Your task to perform on an android device: Search for "duracell triple a" on ebay.com, select the first entry, and add it to the cart. Image 0: 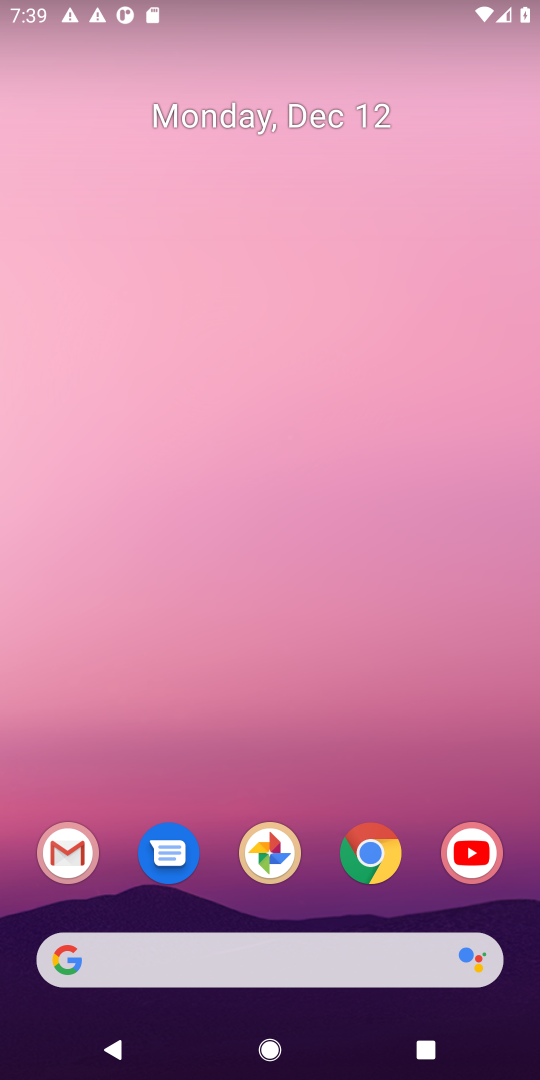
Step 0: click (377, 851)
Your task to perform on an android device: Search for "duracell triple a" on ebay.com, select the first entry, and add it to the cart. Image 1: 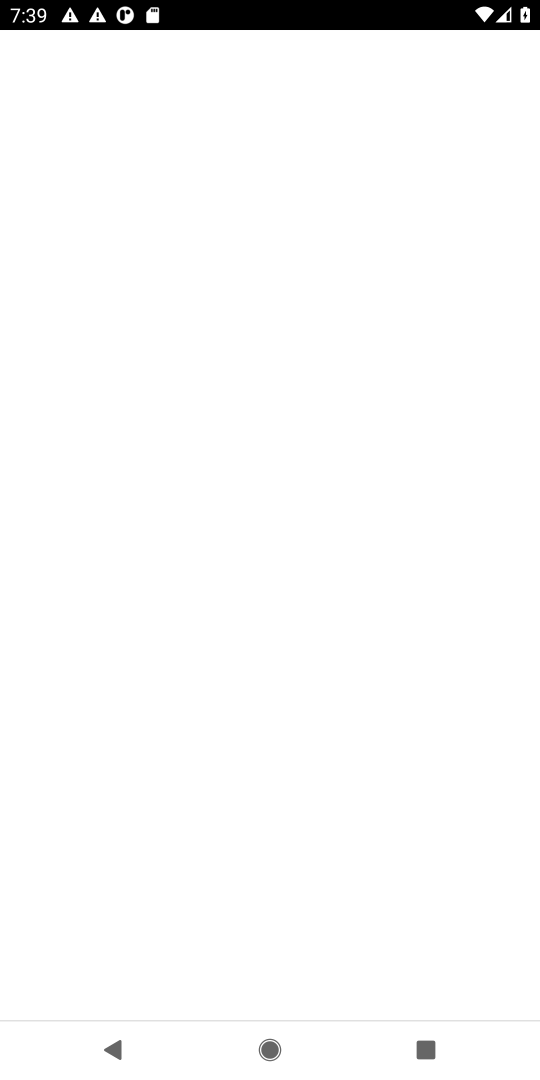
Step 1: press home button
Your task to perform on an android device: Search for "duracell triple a" on ebay.com, select the first entry, and add it to the cart. Image 2: 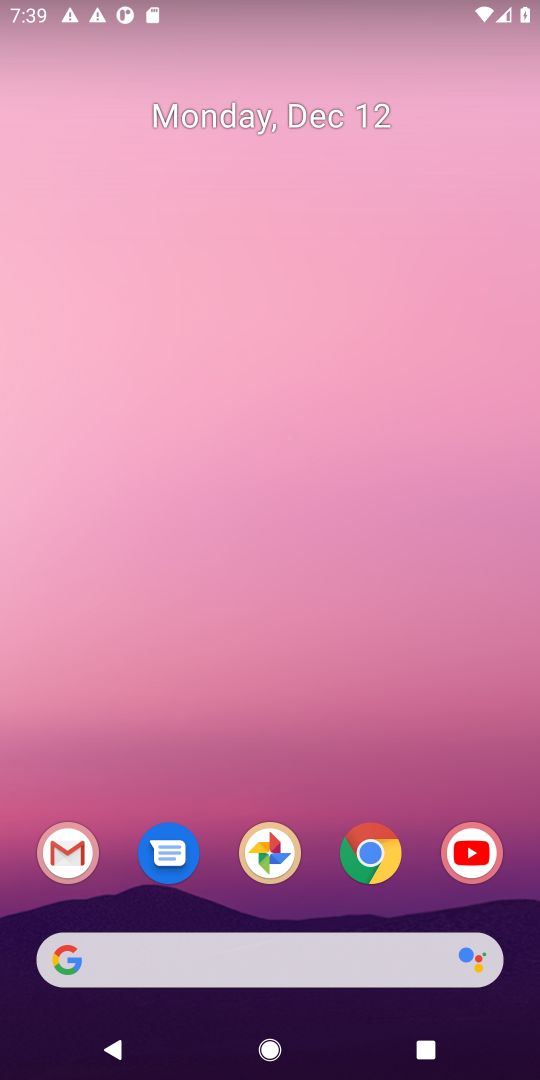
Step 2: click (72, 950)
Your task to perform on an android device: Search for "duracell triple a" on ebay.com, select the first entry, and add it to the cart. Image 3: 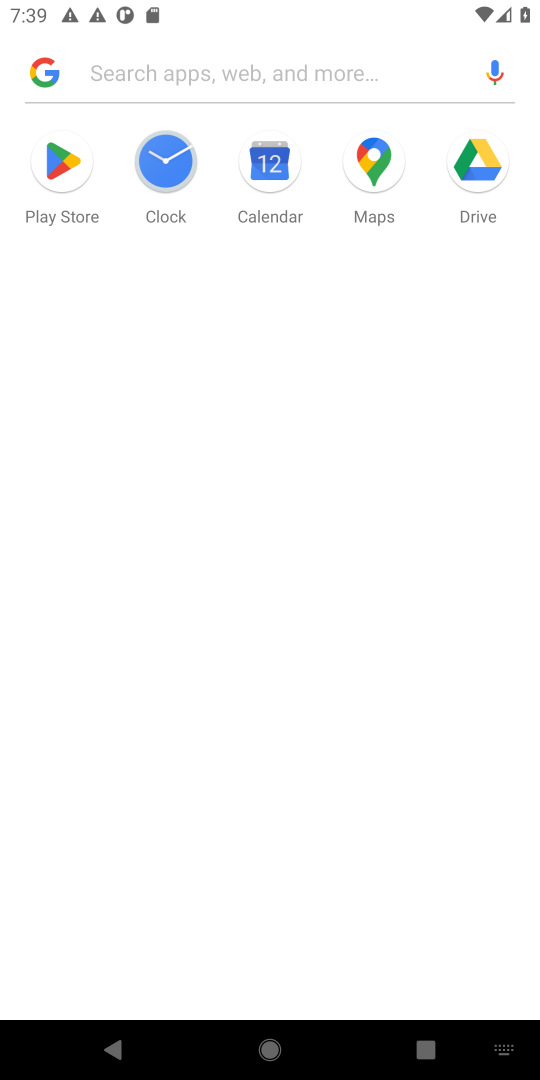
Step 3: type "ebay"
Your task to perform on an android device: Search for "duracell triple a" on ebay.com, select the first entry, and add it to the cart. Image 4: 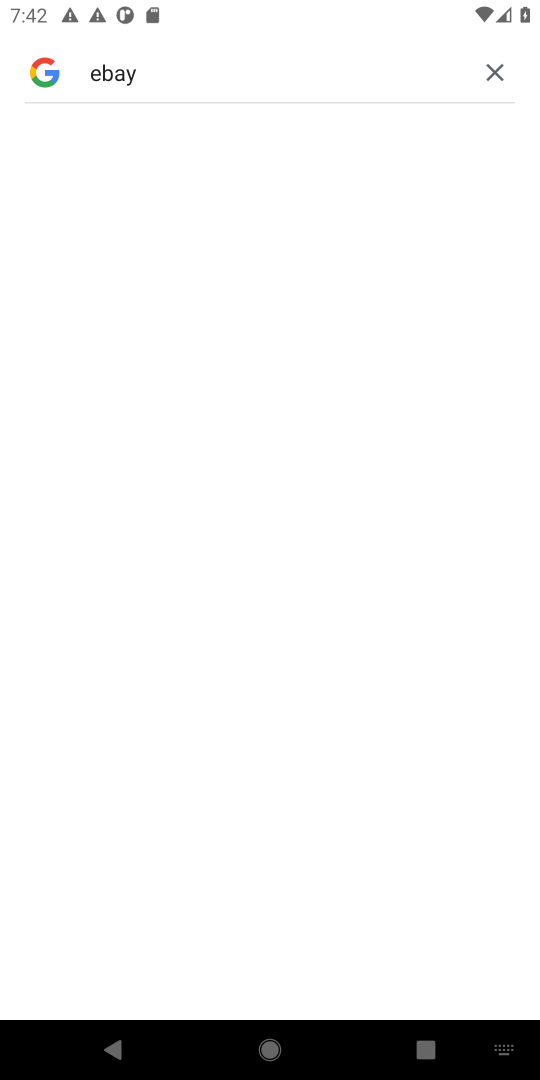
Step 4: task complete